Your task to perform on an android device: add a label to a message in the gmail app Image 0: 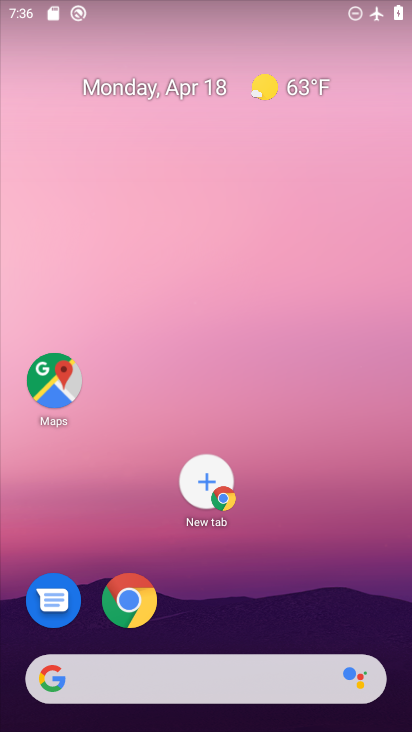
Step 0: click (318, 45)
Your task to perform on an android device: add a label to a message in the gmail app Image 1: 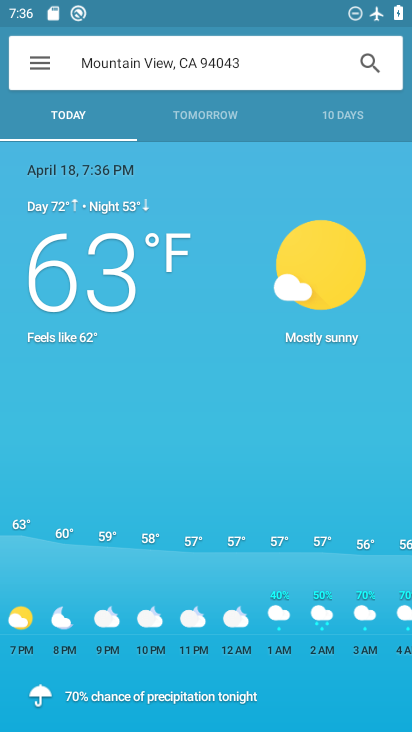
Step 1: press home button
Your task to perform on an android device: add a label to a message in the gmail app Image 2: 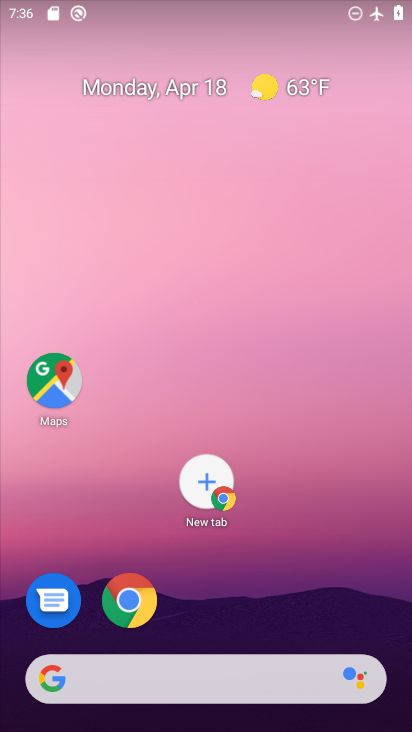
Step 2: drag from (291, 602) to (272, 2)
Your task to perform on an android device: add a label to a message in the gmail app Image 3: 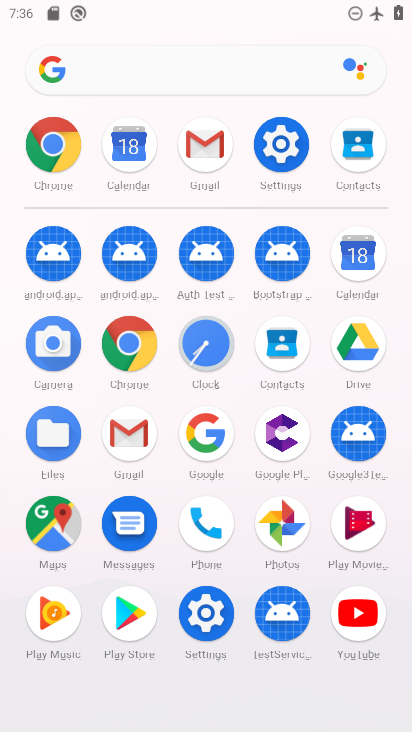
Step 3: click (210, 147)
Your task to perform on an android device: add a label to a message in the gmail app Image 4: 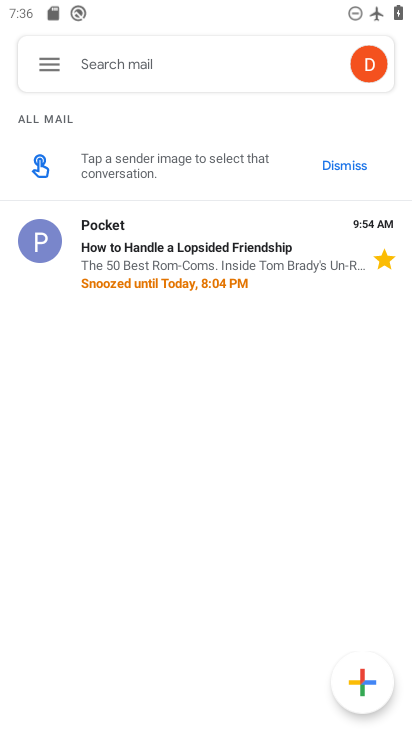
Step 4: click (135, 239)
Your task to perform on an android device: add a label to a message in the gmail app Image 5: 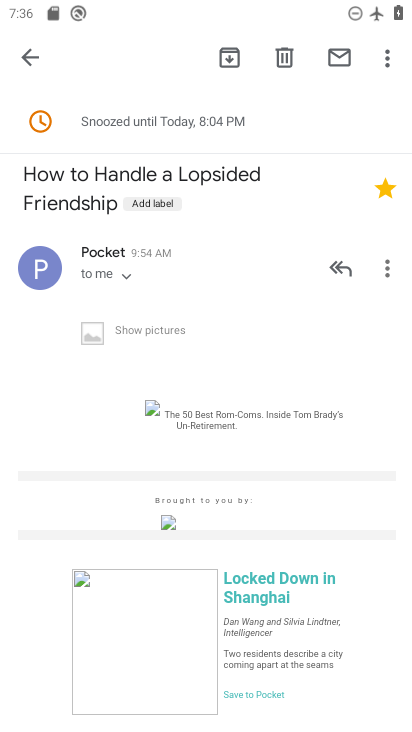
Step 5: click (386, 60)
Your task to perform on an android device: add a label to a message in the gmail app Image 6: 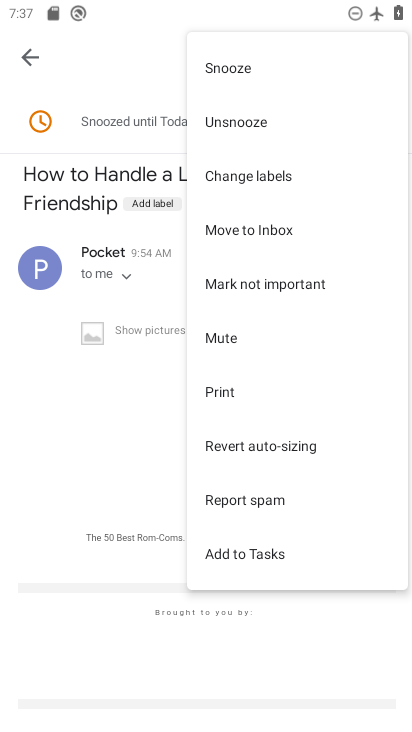
Step 6: click (265, 176)
Your task to perform on an android device: add a label to a message in the gmail app Image 7: 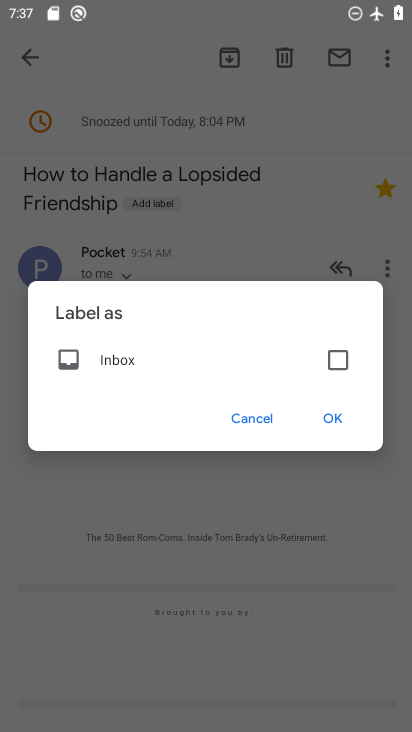
Step 7: click (337, 359)
Your task to perform on an android device: add a label to a message in the gmail app Image 8: 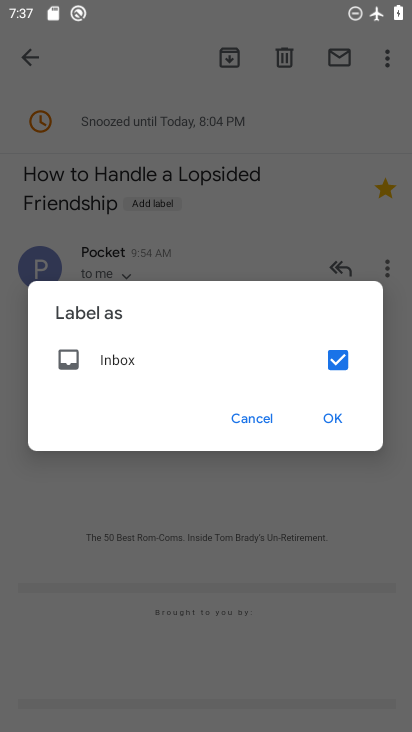
Step 8: click (332, 413)
Your task to perform on an android device: add a label to a message in the gmail app Image 9: 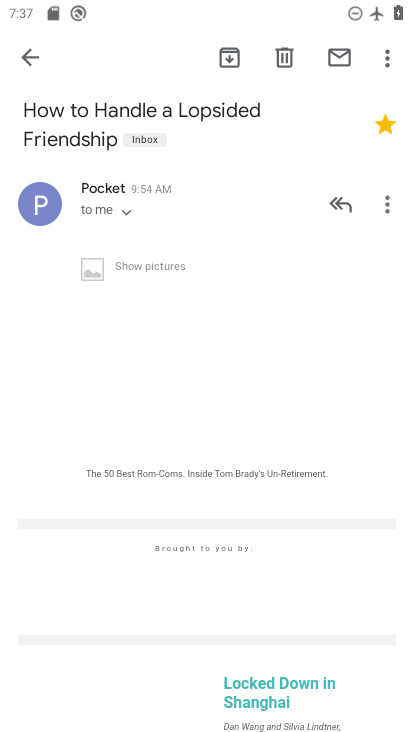
Step 9: task complete